Your task to perform on an android device: snooze an email in the gmail app Image 0: 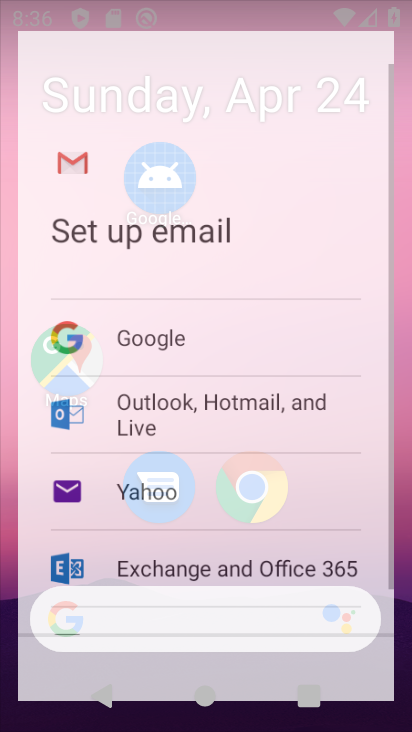
Step 0: click (261, 482)
Your task to perform on an android device: snooze an email in the gmail app Image 1: 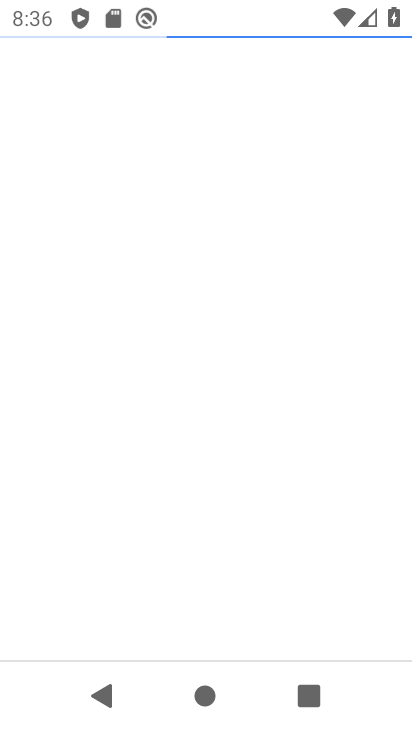
Step 1: press home button
Your task to perform on an android device: snooze an email in the gmail app Image 2: 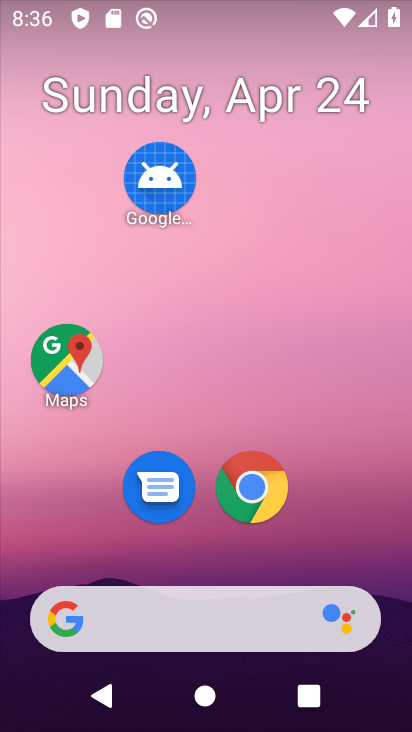
Step 2: drag from (368, 333) to (369, 113)
Your task to perform on an android device: snooze an email in the gmail app Image 3: 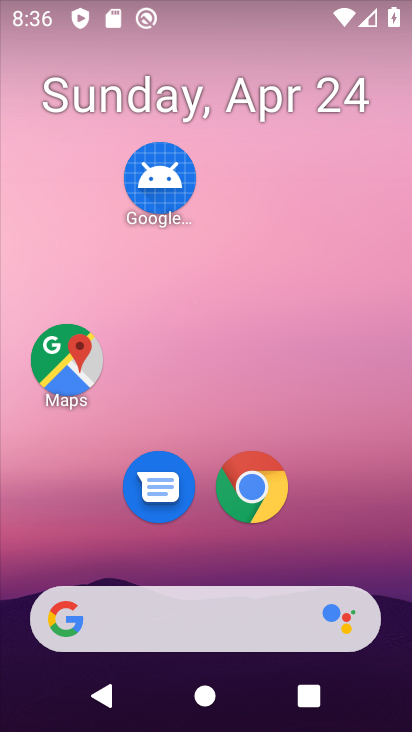
Step 3: drag from (327, 493) to (330, 0)
Your task to perform on an android device: snooze an email in the gmail app Image 4: 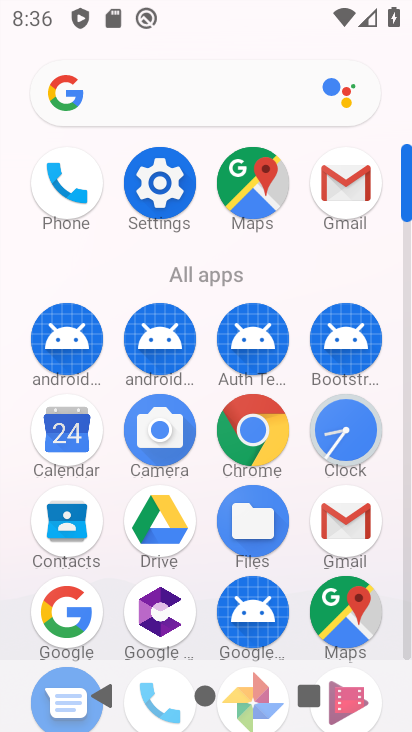
Step 4: click (358, 191)
Your task to perform on an android device: snooze an email in the gmail app Image 5: 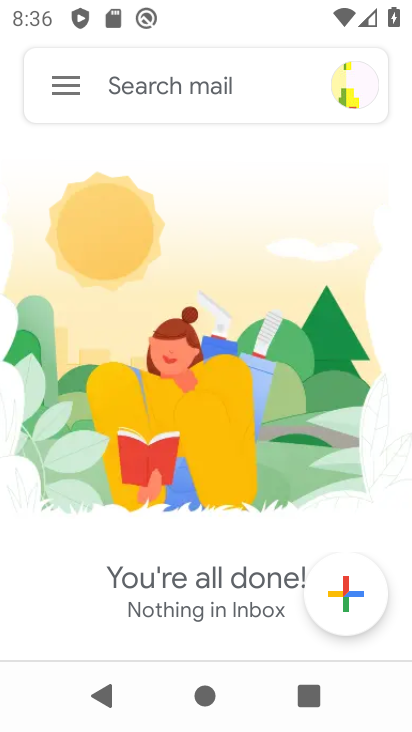
Step 5: click (64, 85)
Your task to perform on an android device: snooze an email in the gmail app Image 6: 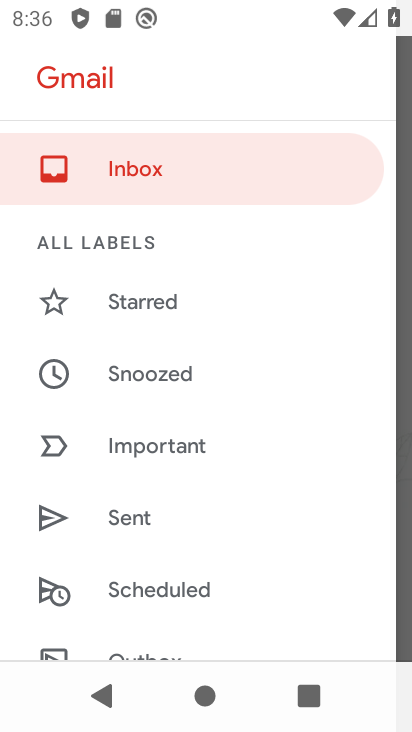
Step 6: drag from (176, 572) to (176, 199)
Your task to perform on an android device: snooze an email in the gmail app Image 7: 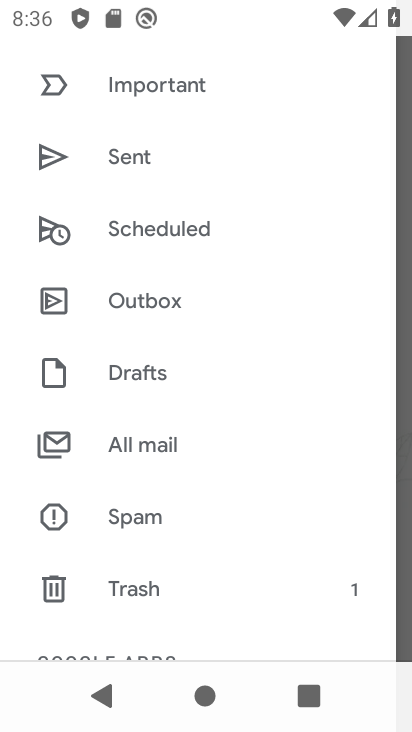
Step 7: click (159, 586)
Your task to perform on an android device: snooze an email in the gmail app Image 8: 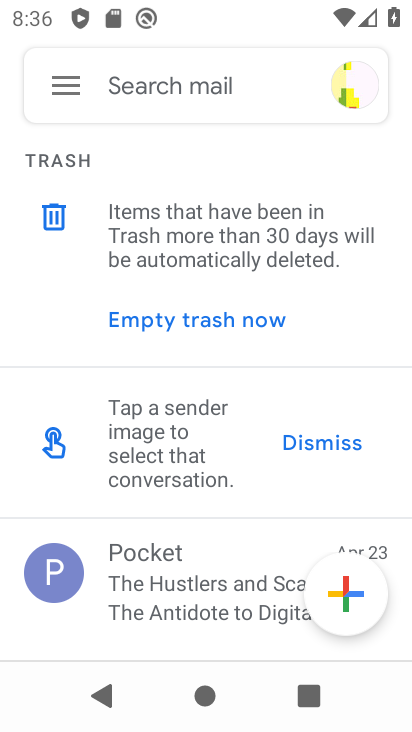
Step 8: click (183, 576)
Your task to perform on an android device: snooze an email in the gmail app Image 9: 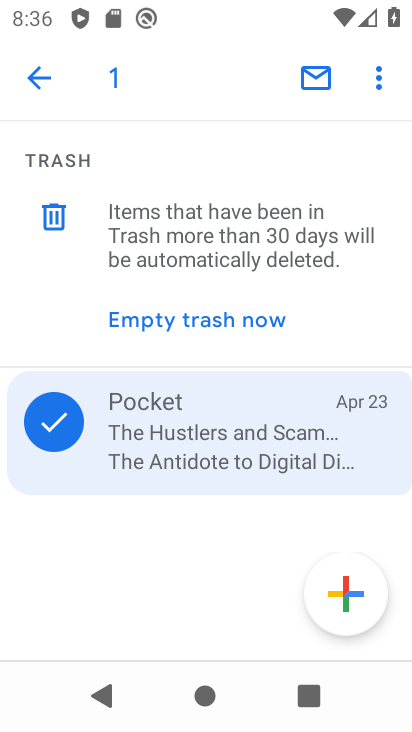
Step 9: click (189, 436)
Your task to perform on an android device: snooze an email in the gmail app Image 10: 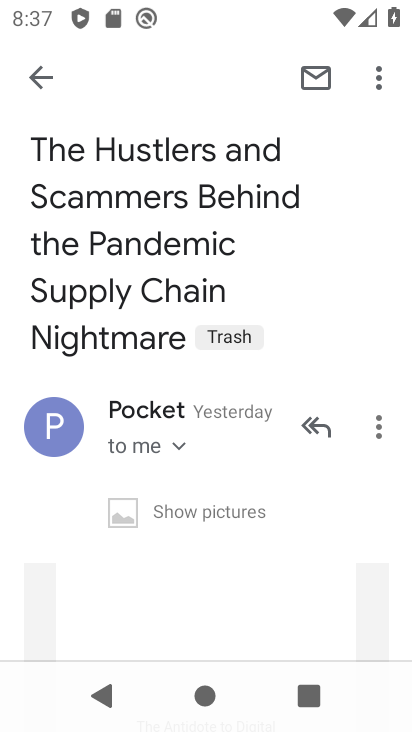
Step 10: click (379, 84)
Your task to perform on an android device: snooze an email in the gmail app Image 11: 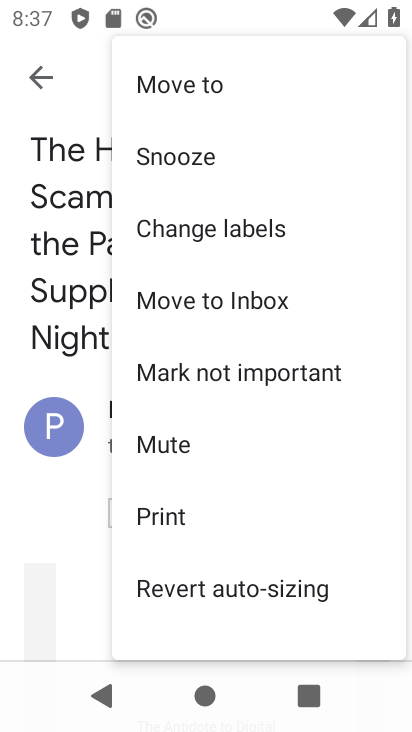
Step 11: click (177, 158)
Your task to perform on an android device: snooze an email in the gmail app Image 12: 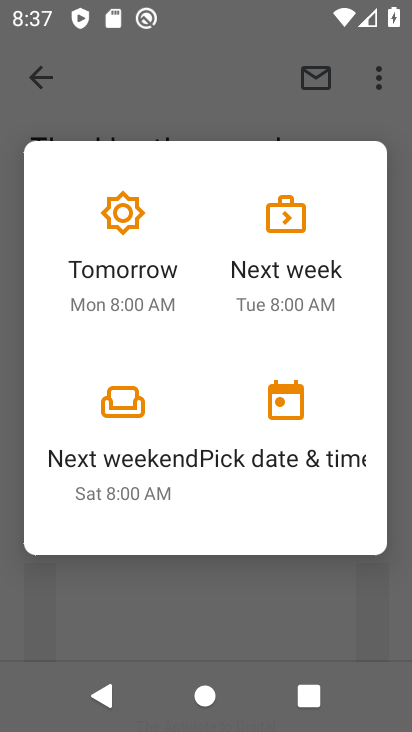
Step 12: click (119, 392)
Your task to perform on an android device: snooze an email in the gmail app Image 13: 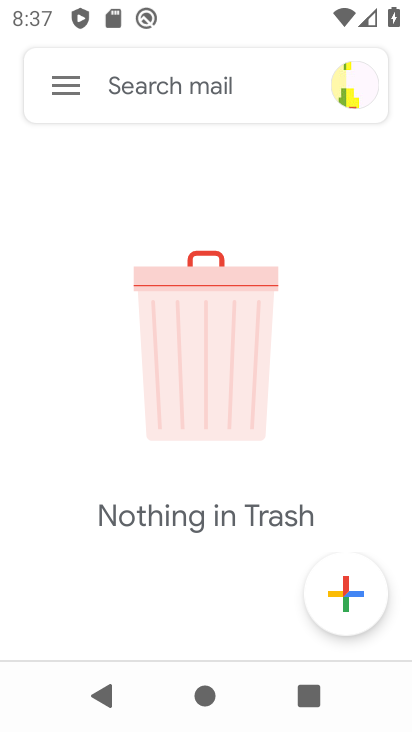
Step 13: click (60, 84)
Your task to perform on an android device: snooze an email in the gmail app Image 14: 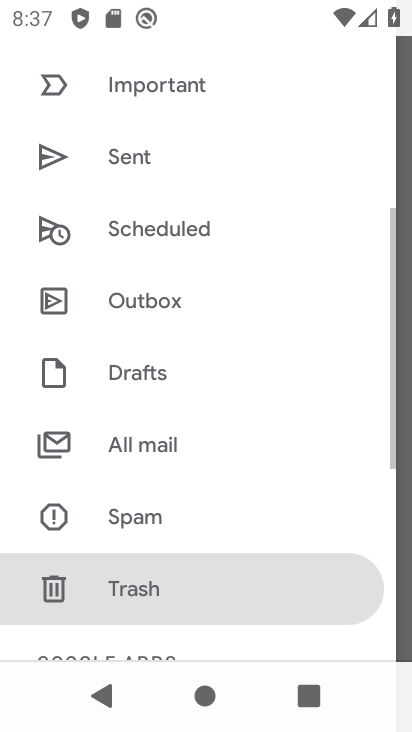
Step 14: drag from (146, 191) to (147, 585)
Your task to perform on an android device: snooze an email in the gmail app Image 15: 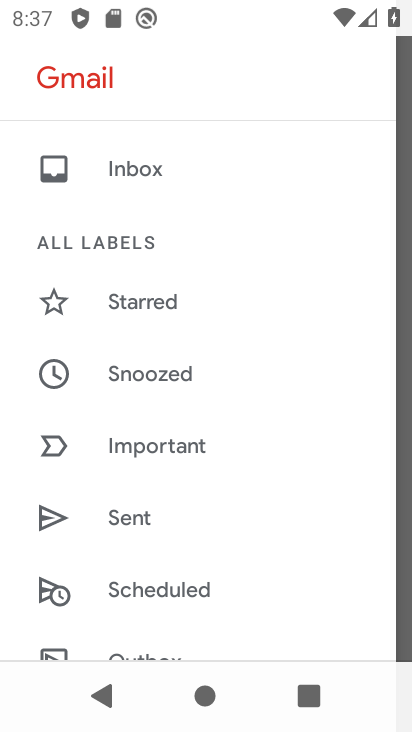
Step 15: click (136, 376)
Your task to perform on an android device: snooze an email in the gmail app Image 16: 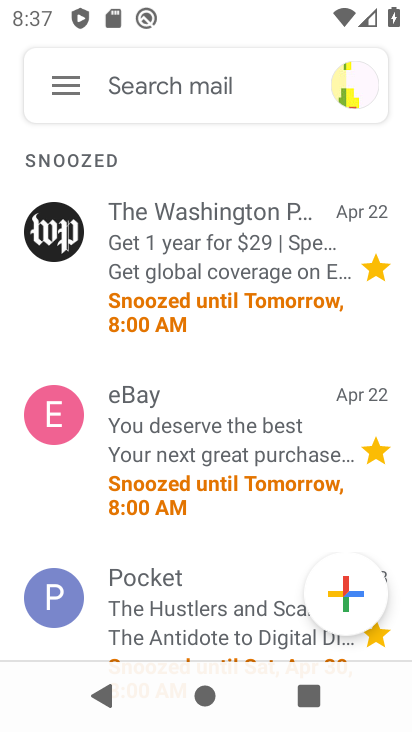
Step 16: task complete